Your task to perform on an android device: turn off smart reply in the gmail app Image 0: 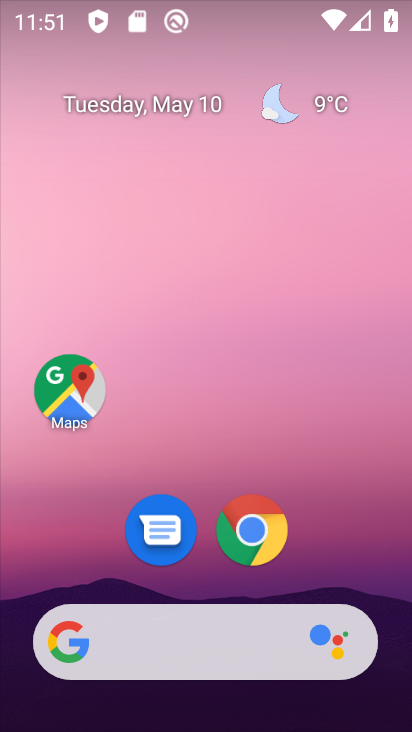
Step 0: drag from (366, 562) to (363, 186)
Your task to perform on an android device: turn off smart reply in the gmail app Image 1: 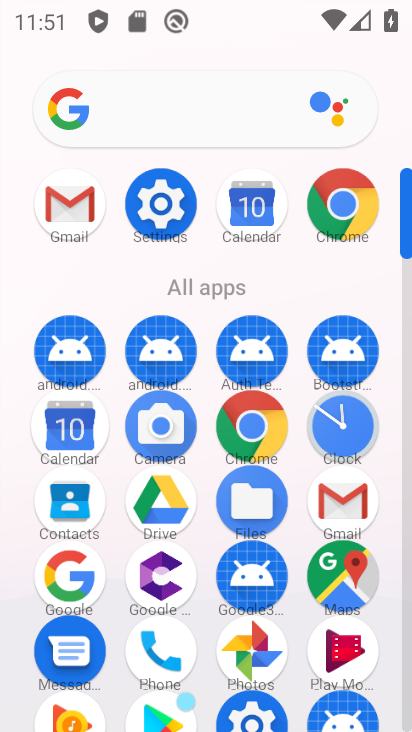
Step 1: click (344, 488)
Your task to perform on an android device: turn off smart reply in the gmail app Image 2: 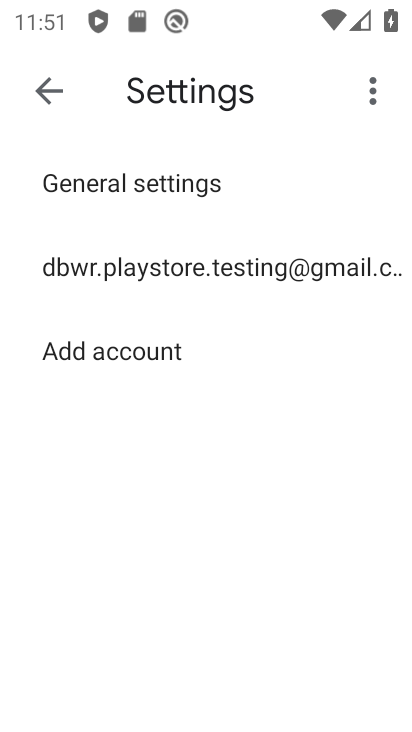
Step 2: click (158, 298)
Your task to perform on an android device: turn off smart reply in the gmail app Image 3: 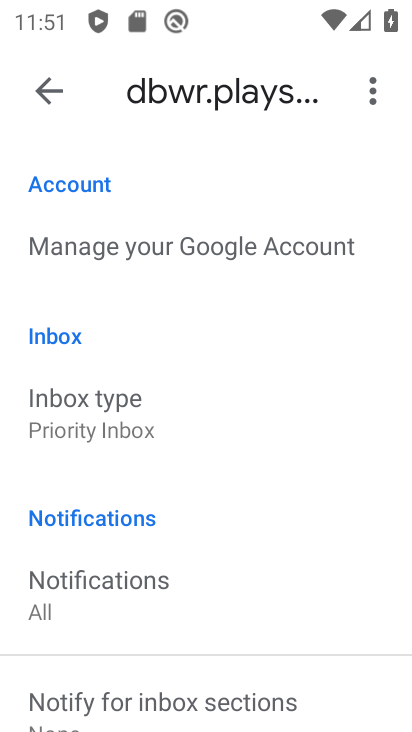
Step 3: drag from (267, 596) to (244, 273)
Your task to perform on an android device: turn off smart reply in the gmail app Image 4: 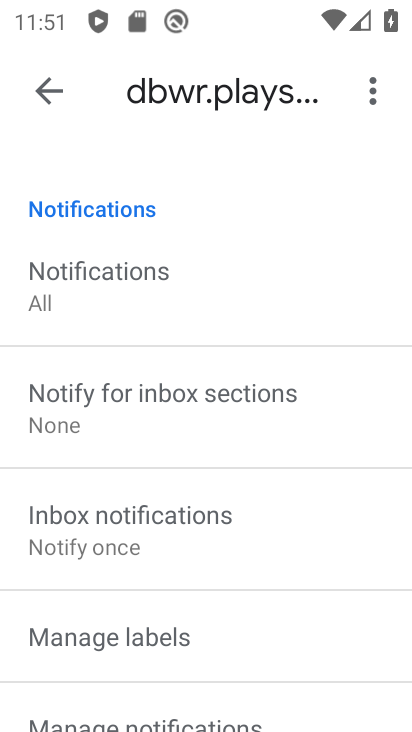
Step 4: drag from (312, 513) to (312, 335)
Your task to perform on an android device: turn off smart reply in the gmail app Image 5: 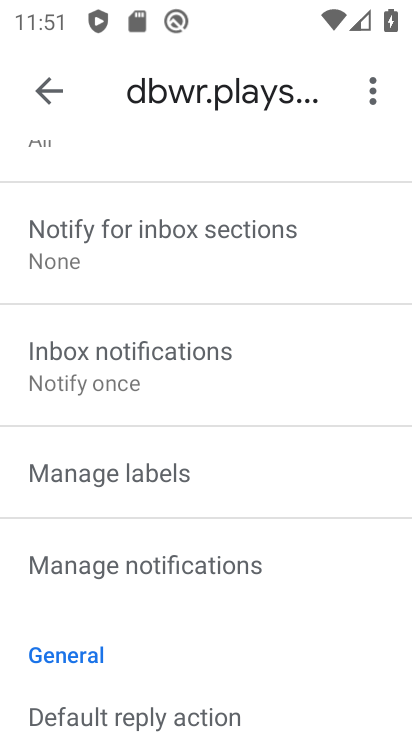
Step 5: drag from (148, 538) to (175, 398)
Your task to perform on an android device: turn off smart reply in the gmail app Image 6: 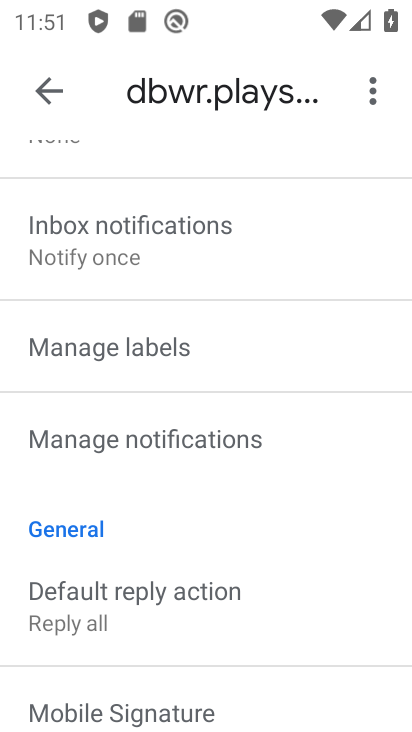
Step 6: drag from (152, 627) to (160, 330)
Your task to perform on an android device: turn off smart reply in the gmail app Image 7: 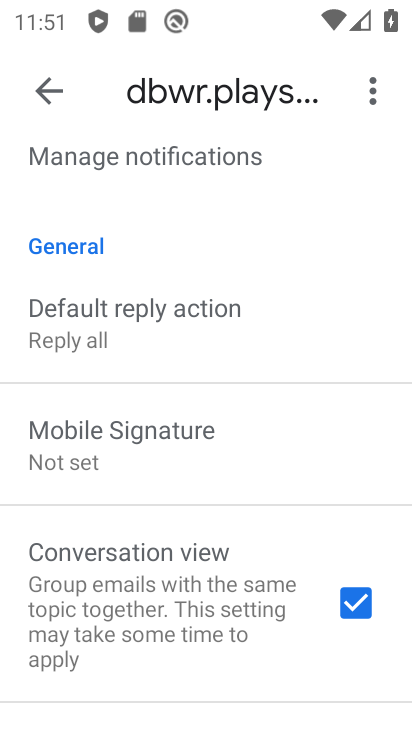
Step 7: drag from (197, 581) to (221, 171)
Your task to perform on an android device: turn off smart reply in the gmail app Image 8: 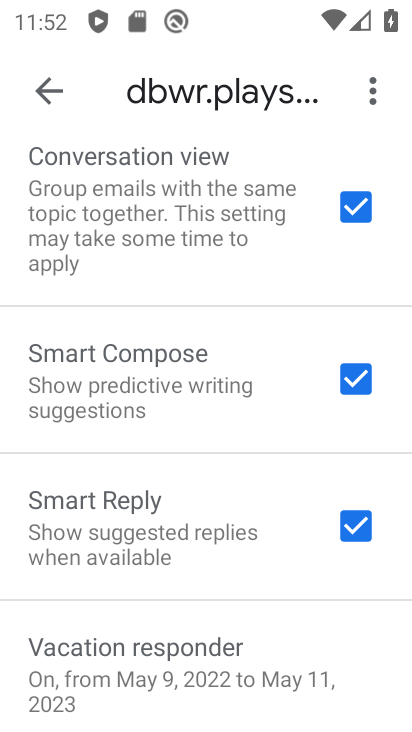
Step 8: click (207, 532)
Your task to perform on an android device: turn off smart reply in the gmail app Image 9: 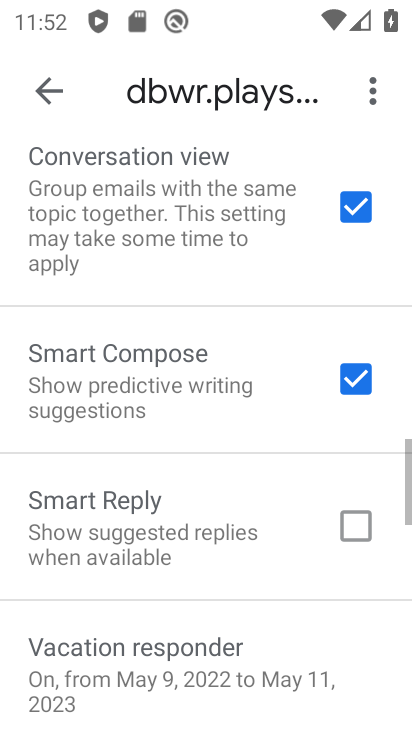
Step 9: task complete